Your task to perform on an android device: open a bookmark in the chrome app Image 0: 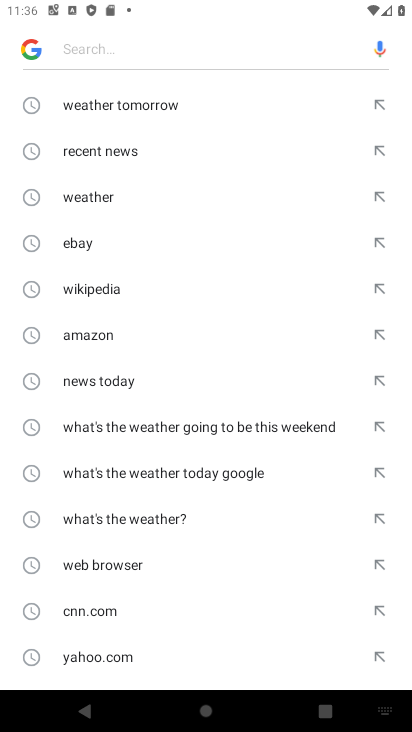
Step 0: press home button
Your task to perform on an android device: open a bookmark in the chrome app Image 1: 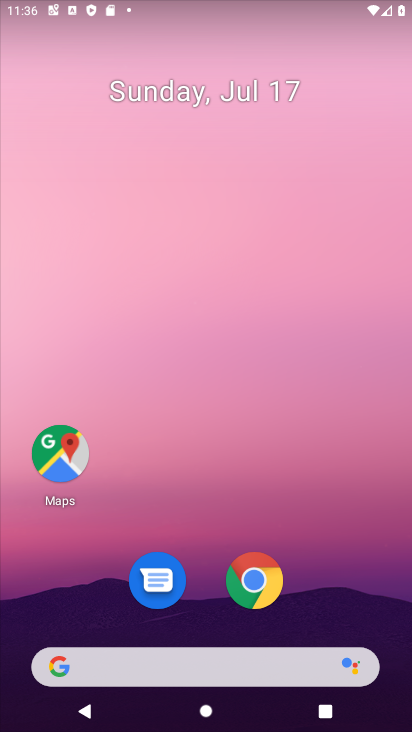
Step 1: drag from (238, 702) to (303, 305)
Your task to perform on an android device: open a bookmark in the chrome app Image 2: 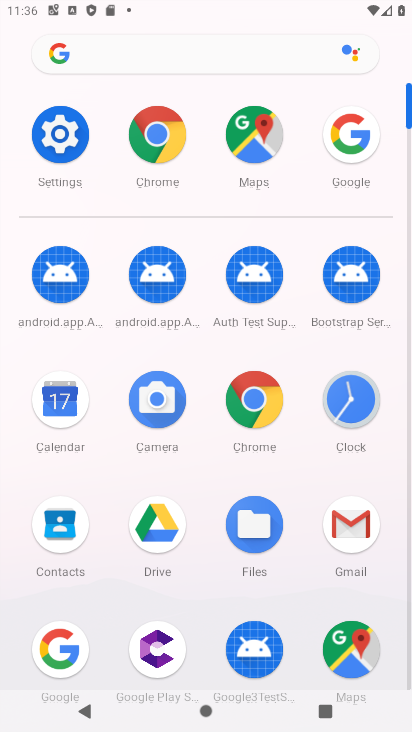
Step 2: drag from (201, 604) to (224, 384)
Your task to perform on an android device: open a bookmark in the chrome app Image 3: 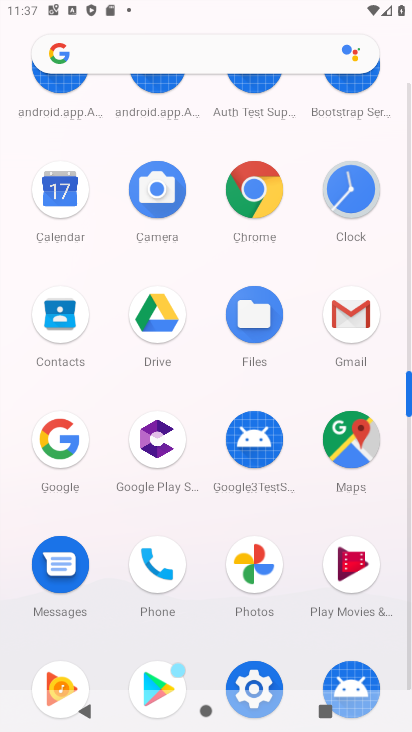
Step 3: click (268, 232)
Your task to perform on an android device: open a bookmark in the chrome app Image 4: 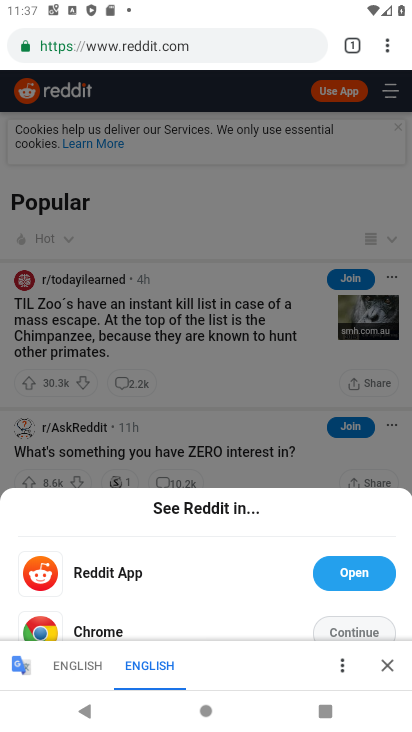
Step 4: click (390, 47)
Your task to perform on an android device: open a bookmark in the chrome app Image 5: 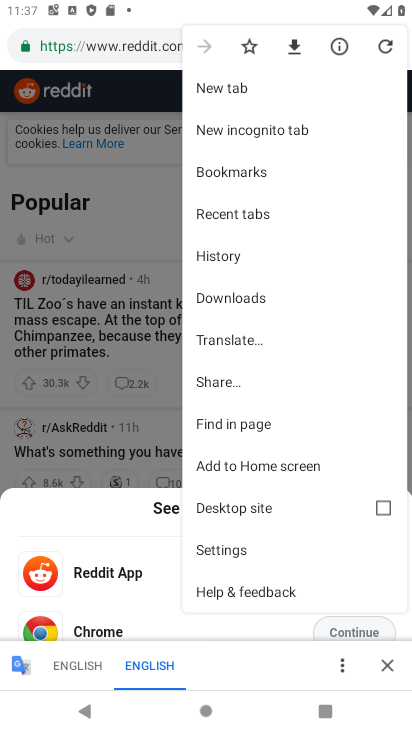
Step 5: click (258, 169)
Your task to perform on an android device: open a bookmark in the chrome app Image 6: 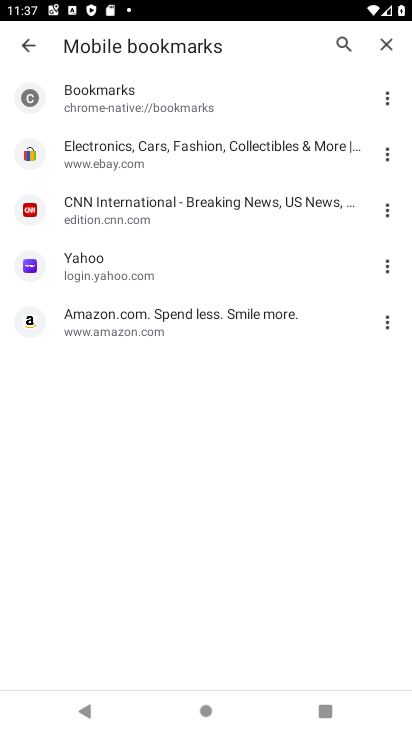
Step 6: click (97, 279)
Your task to perform on an android device: open a bookmark in the chrome app Image 7: 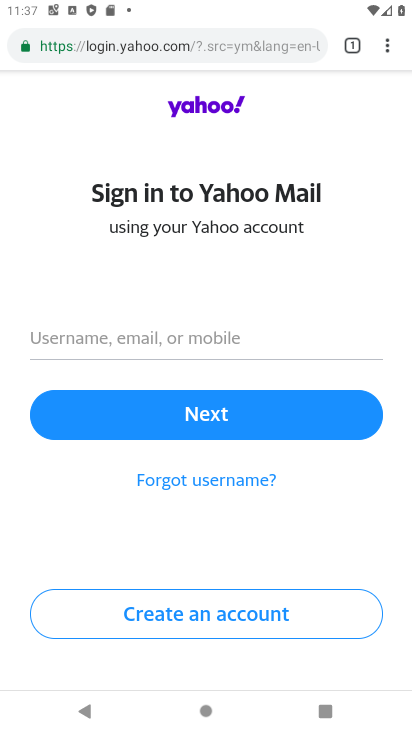
Step 7: task complete